Your task to perform on an android device: Go to eBay Image 0: 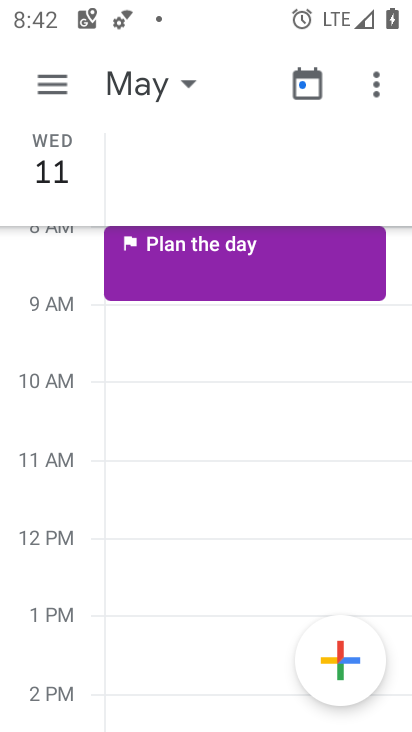
Step 0: press home button
Your task to perform on an android device: Go to eBay Image 1: 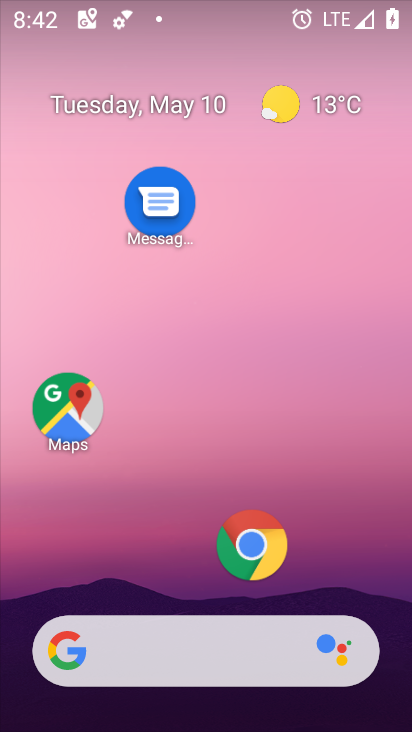
Step 1: click (248, 539)
Your task to perform on an android device: Go to eBay Image 2: 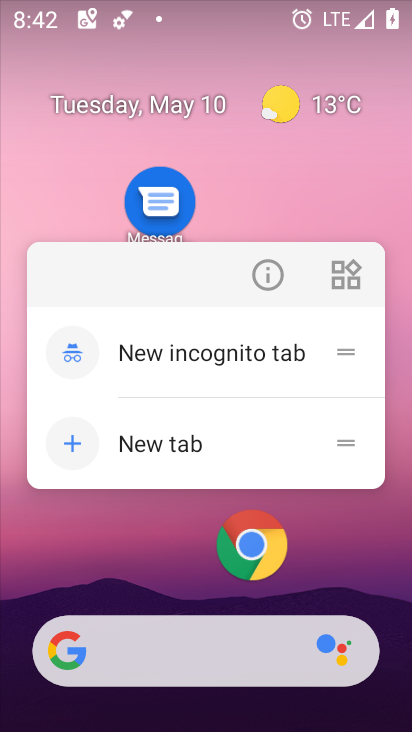
Step 2: click (248, 539)
Your task to perform on an android device: Go to eBay Image 3: 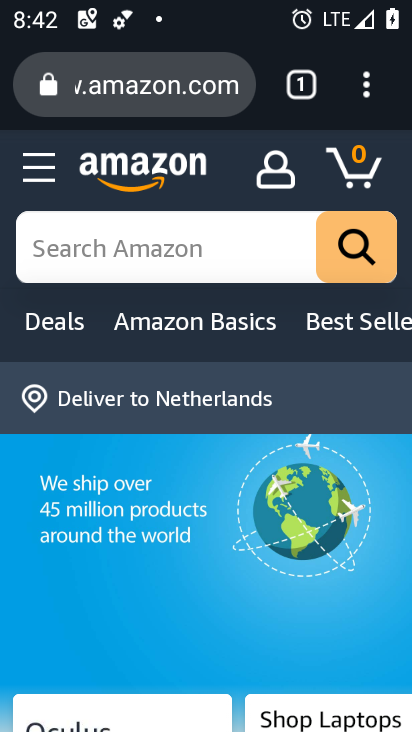
Step 3: click (305, 78)
Your task to perform on an android device: Go to eBay Image 4: 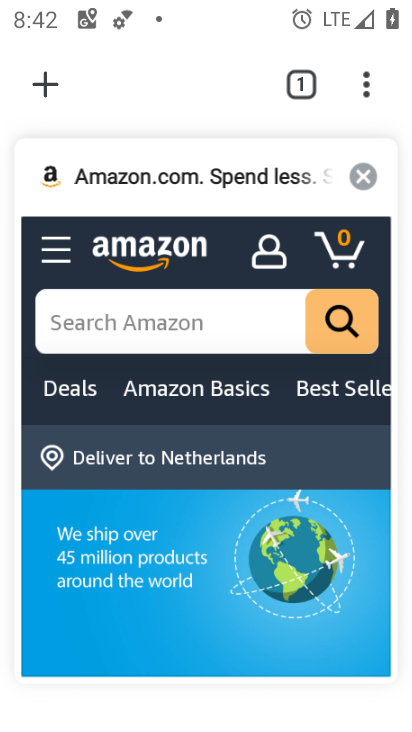
Step 4: click (362, 173)
Your task to perform on an android device: Go to eBay Image 5: 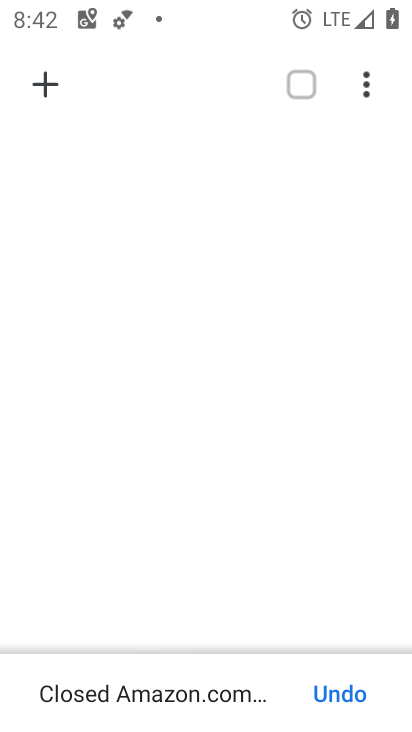
Step 5: click (55, 93)
Your task to perform on an android device: Go to eBay Image 6: 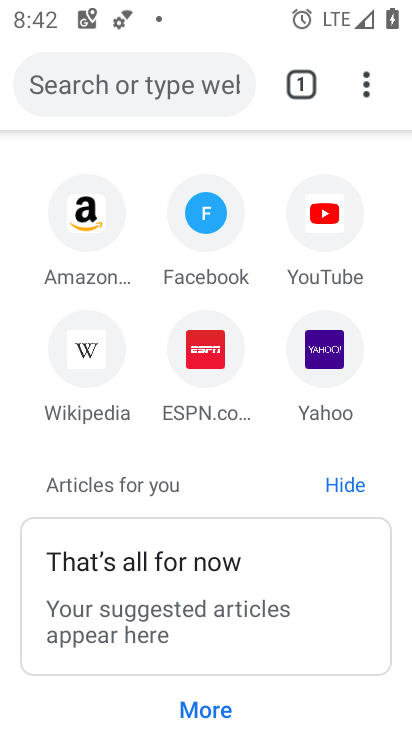
Step 6: click (141, 83)
Your task to perform on an android device: Go to eBay Image 7: 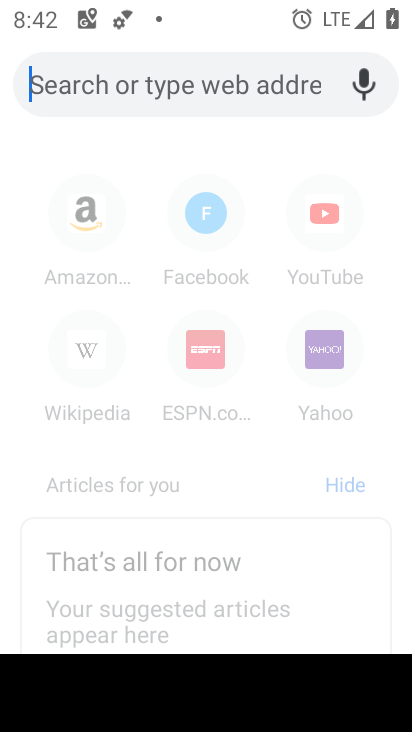
Step 7: type "ebay"
Your task to perform on an android device: Go to eBay Image 8: 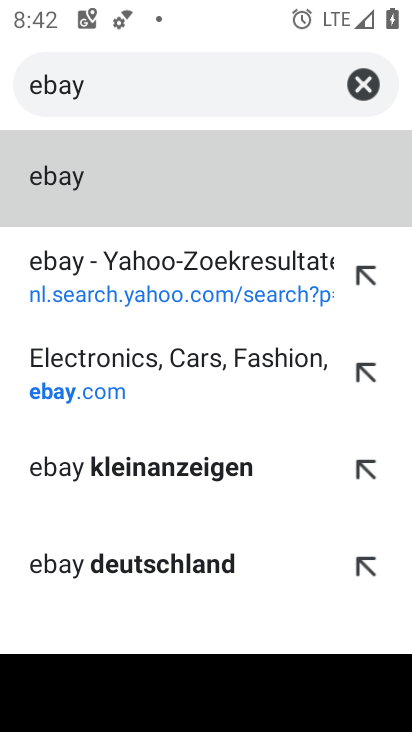
Step 8: click (133, 377)
Your task to perform on an android device: Go to eBay Image 9: 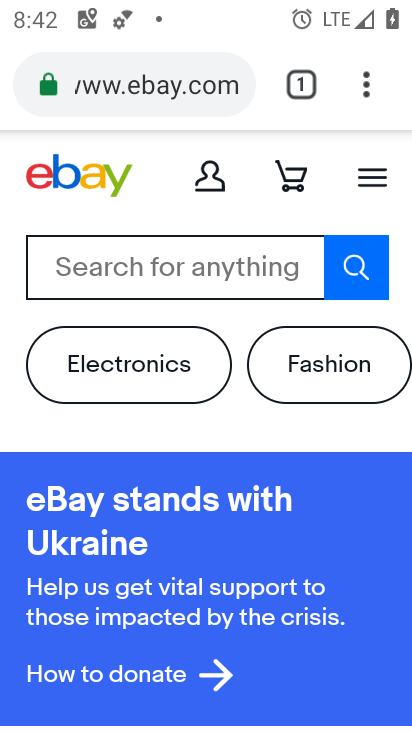
Step 9: drag from (224, 564) to (246, 148)
Your task to perform on an android device: Go to eBay Image 10: 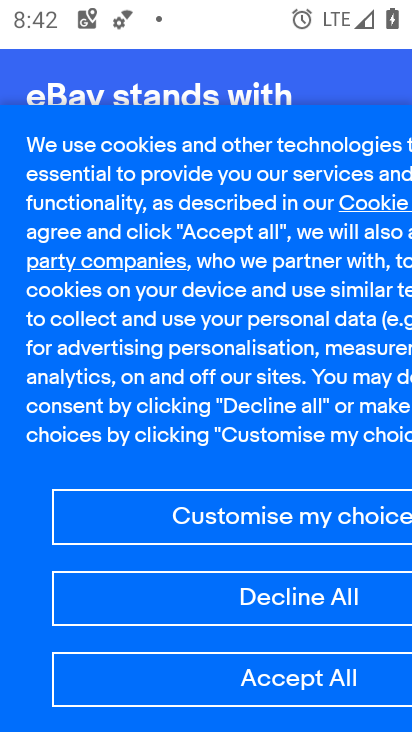
Step 10: click (273, 686)
Your task to perform on an android device: Go to eBay Image 11: 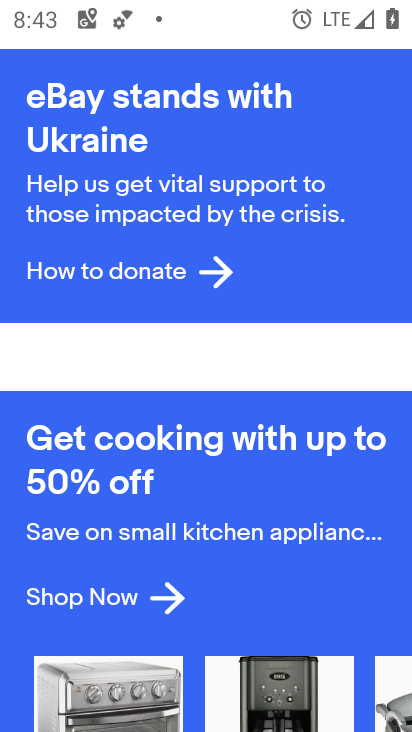
Step 11: task complete